Your task to perform on an android device: What's the weather today? Image 0: 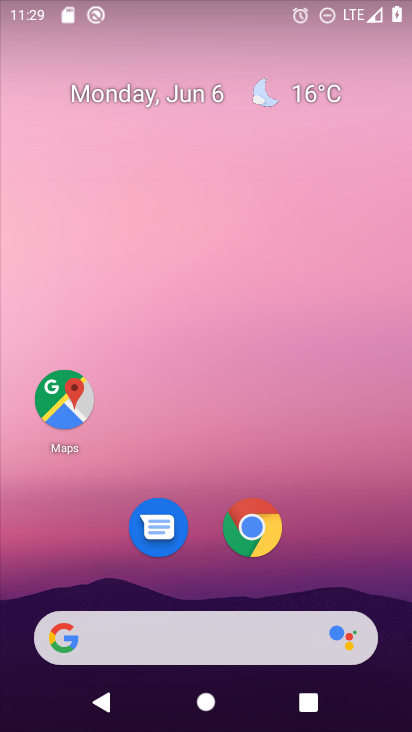
Step 0: click (323, 94)
Your task to perform on an android device: What's the weather today? Image 1: 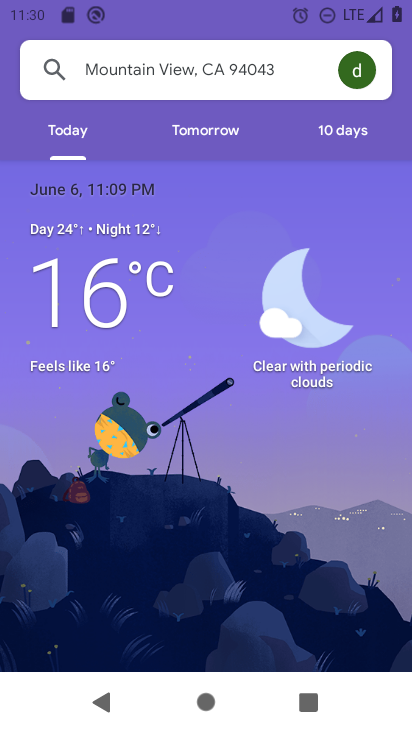
Step 1: task complete